Your task to perform on an android device: Clear all items from cart on target.com. Add amazon basics triple a to the cart on target.com, then select checkout. Image 0: 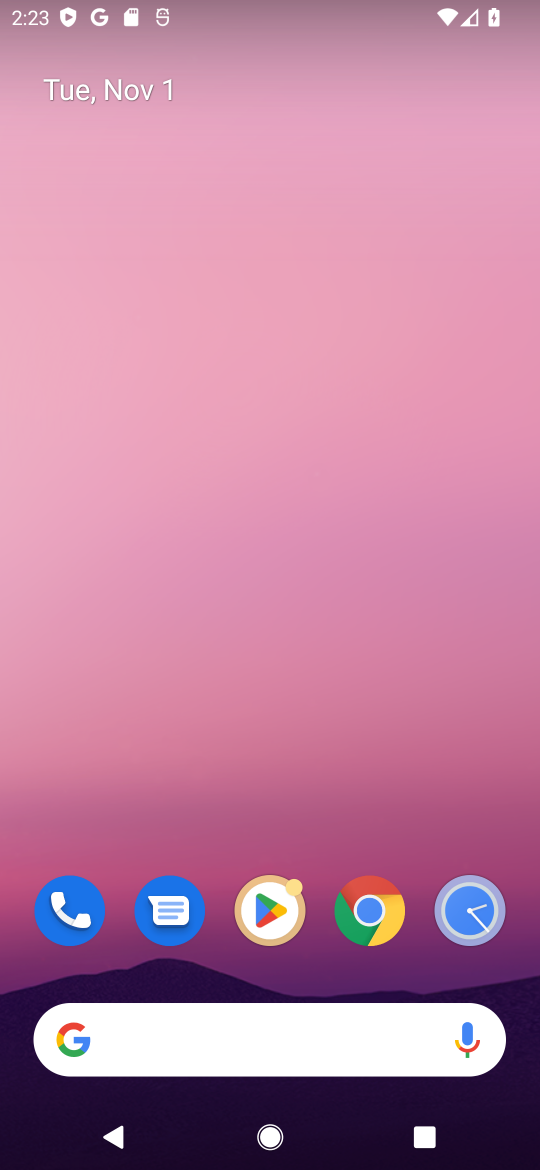
Step 0: drag from (258, 960) to (264, 192)
Your task to perform on an android device: Clear all items from cart on target.com. Add amazon basics triple a to the cart on target.com, then select checkout. Image 1: 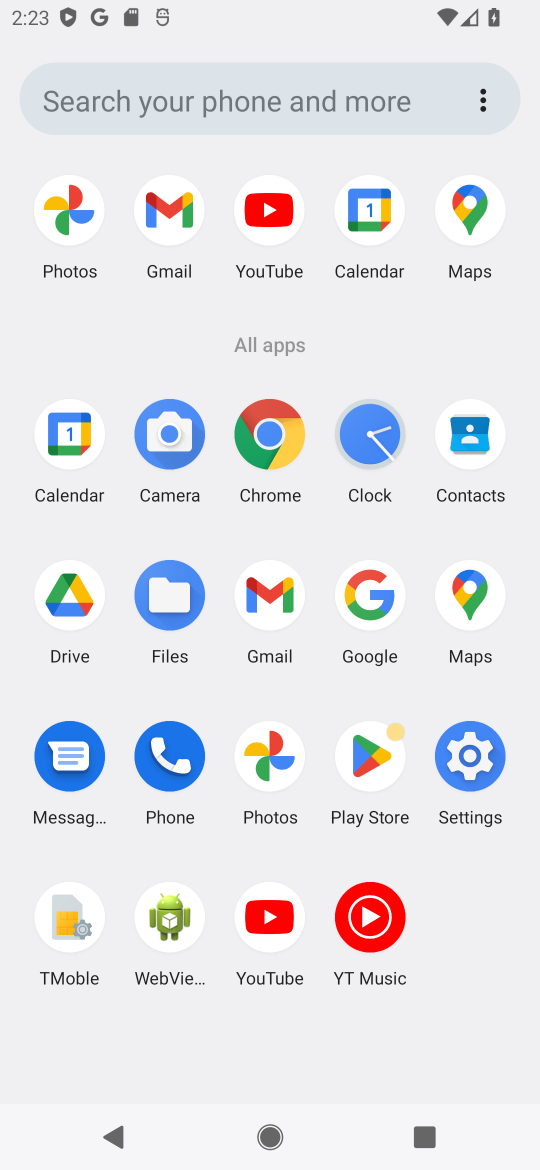
Step 1: click (374, 598)
Your task to perform on an android device: Clear all items from cart on target.com. Add amazon basics triple a to the cart on target.com, then select checkout. Image 2: 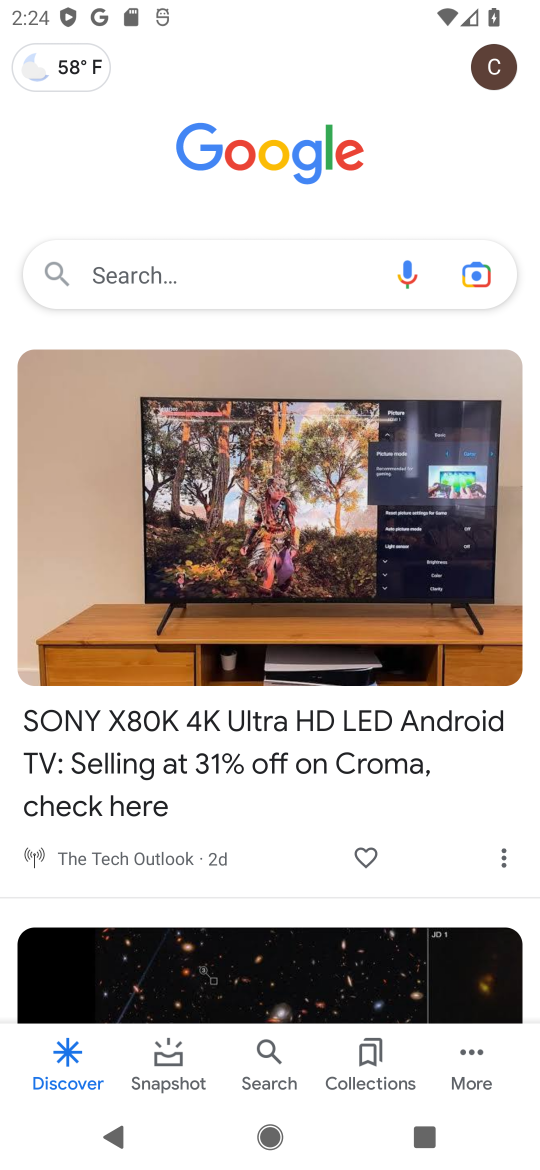
Step 2: click (209, 264)
Your task to perform on an android device: Clear all items from cart on target.com. Add amazon basics triple a to the cart on target.com, then select checkout. Image 3: 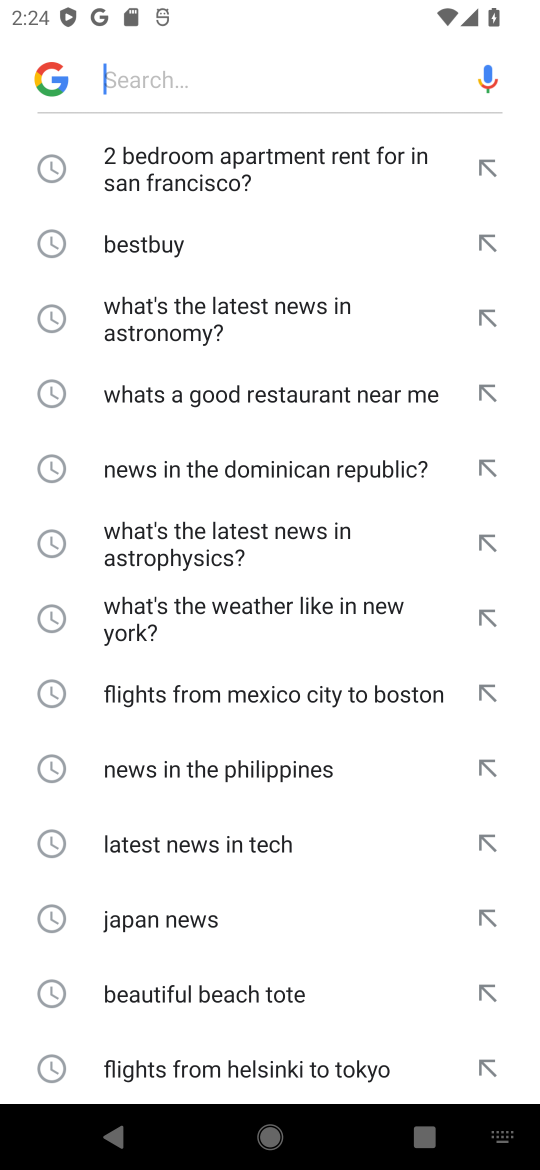
Step 3: type "target.com"
Your task to perform on an android device: Clear all items from cart on target.com. Add amazon basics triple a to the cart on target.com, then select checkout. Image 4: 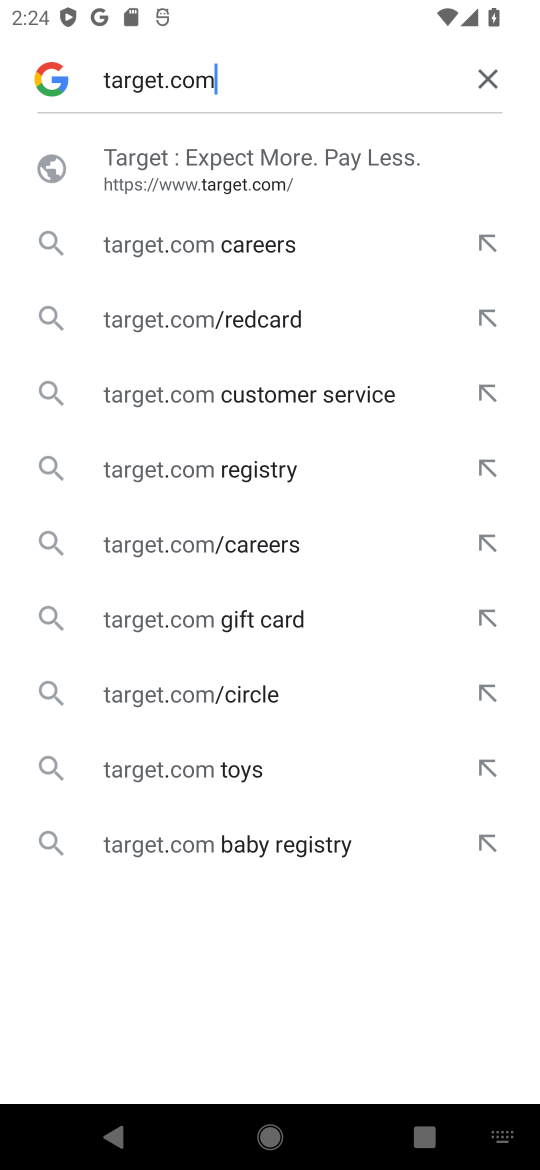
Step 4: click (239, 189)
Your task to perform on an android device: Clear all items from cart on target.com. Add amazon basics triple a to the cart on target.com, then select checkout. Image 5: 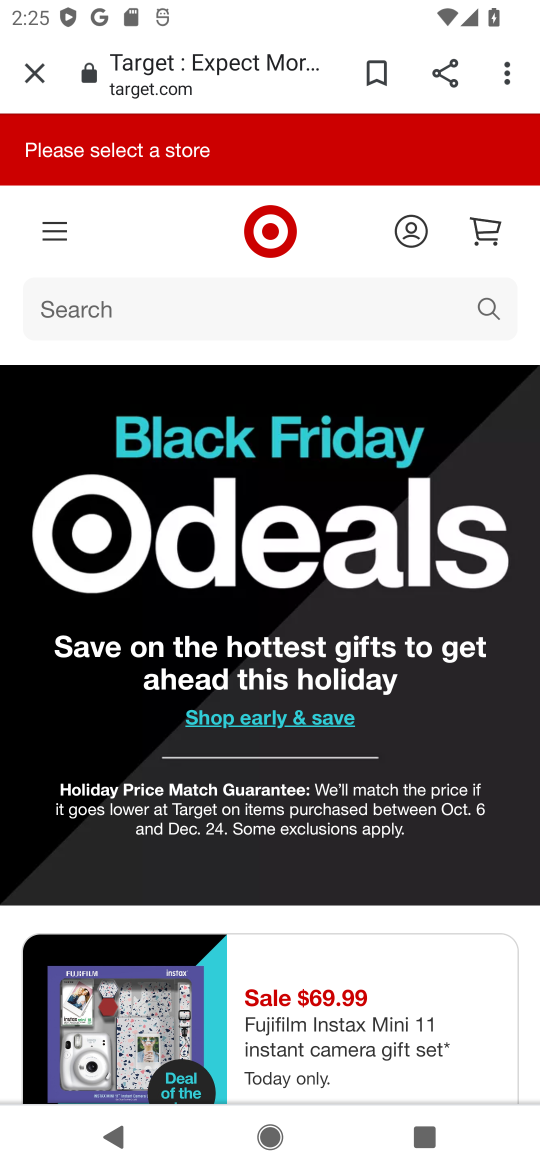
Step 5: click (493, 241)
Your task to perform on an android device: Clear all items from cart on target.com. Add amazon basics triple a to the cart on target.com, then select checkout. Image 6: 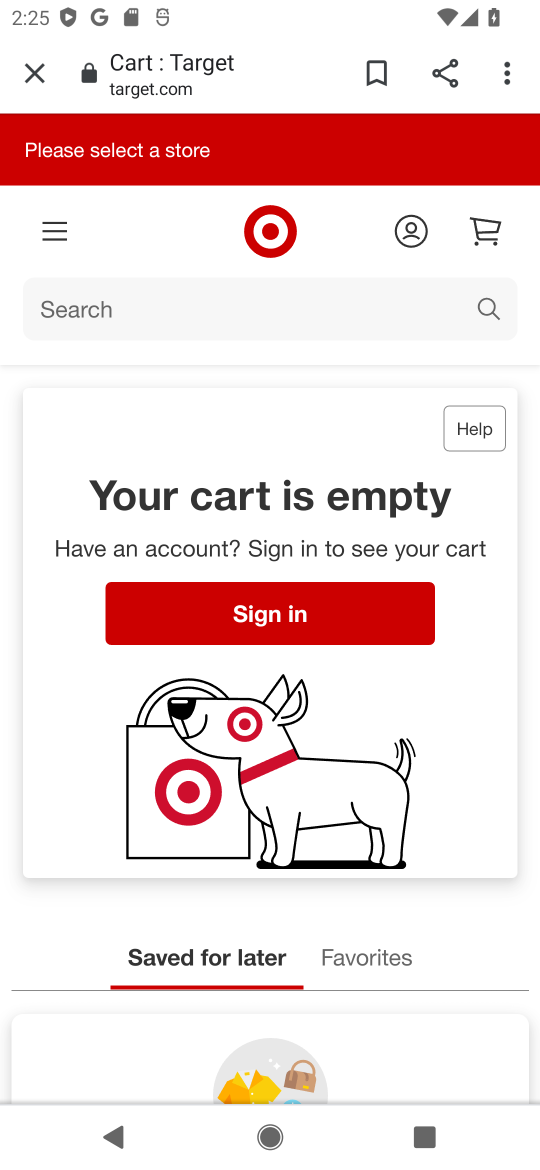
Step 6: click (470, 311)
Your task to perform on an android device: Clear all items from cart on target.com. Add amazon basics triple a to the cart on target.com, then select checkout. Image 7: 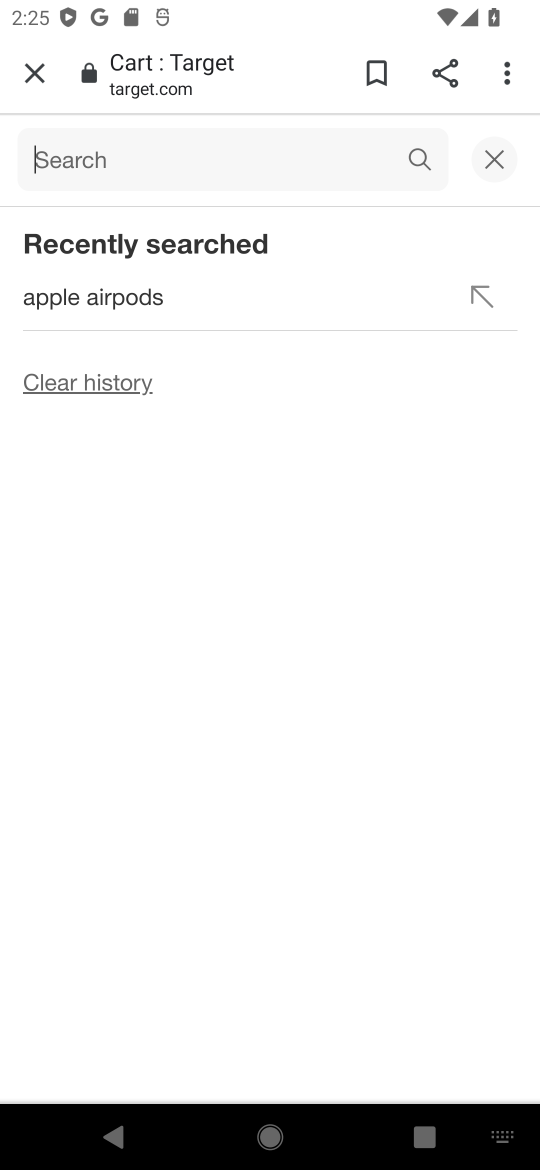
Step 7: type "triple a"
Your task to perform on an android device: Clear all items from cart on target.com. Add amazon basics triple a to the cart on target.com, then select checkout. Image 8: 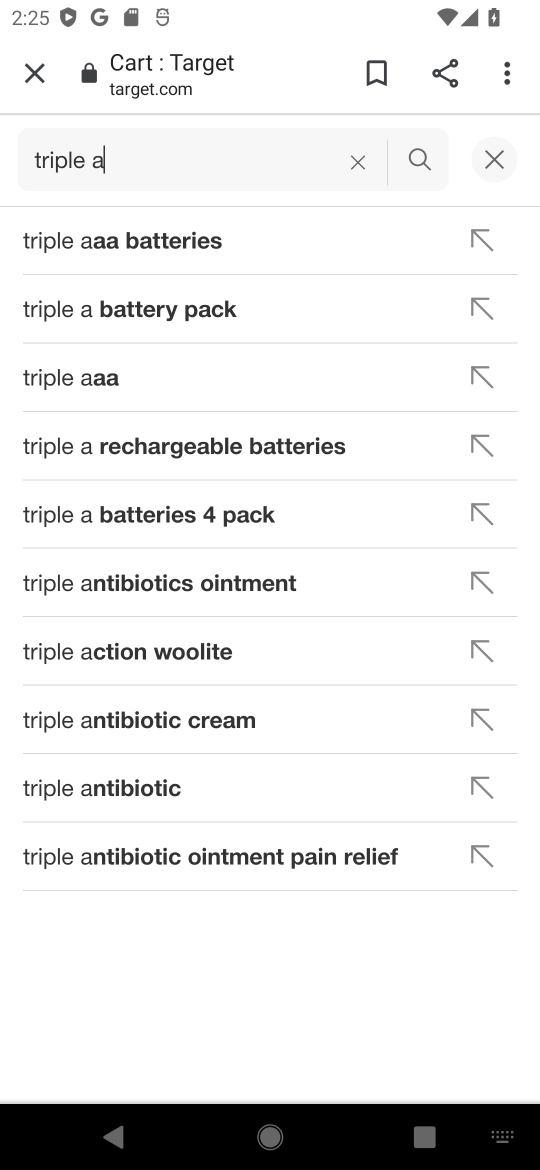
Step 8: click (215, 304)
Your task to perform on an android device: Clear all items from cart on target.com. Add amazon basics triple a to the cart on target.com, then select checkout. Image 9: 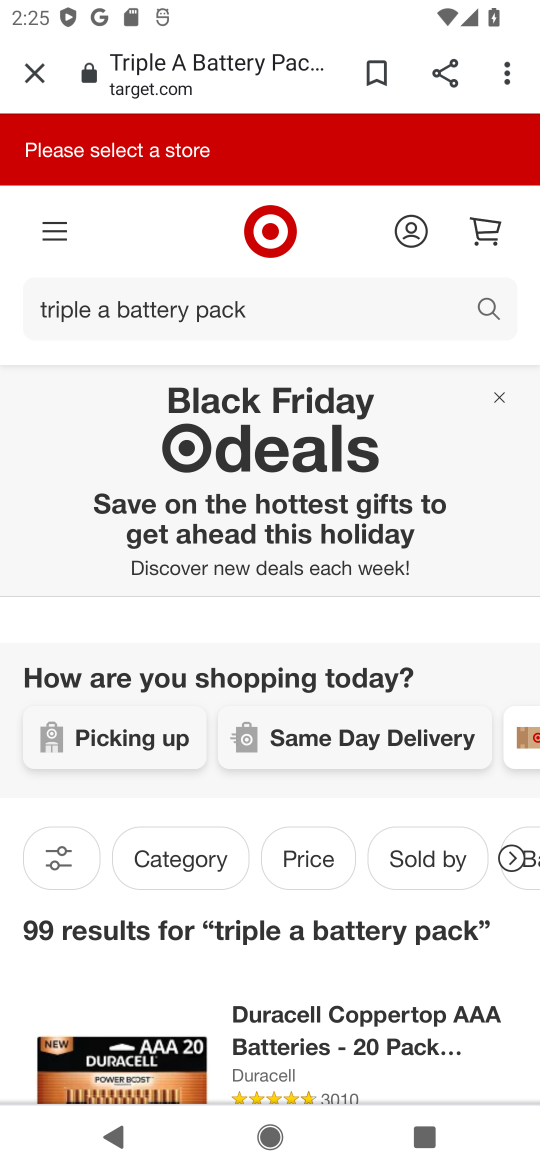
Step 9: drag from (352, 929) to (351, 768)
Your task to perform on an android device: Clear all items from cart on target.com. Add amazon basics triple a to the cart on target.com, then select checkout. Image 10: 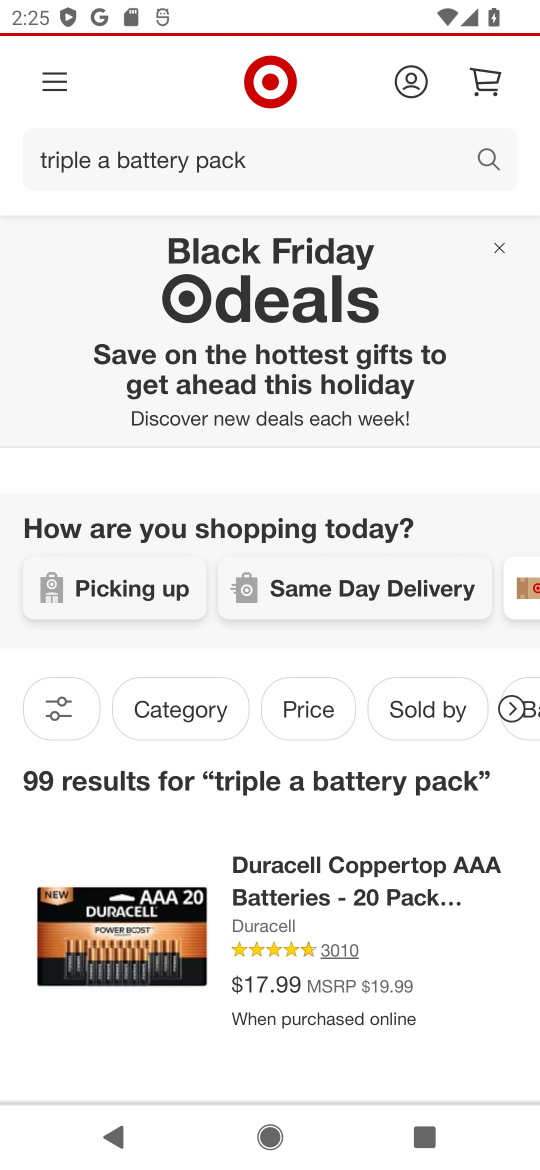
Step 10: click (351, 856)
Your task to perform on an android device: Clear all items from cart on target.com. Add amazon basics triple a to the cart on target.com, then select checkout. Image 11: 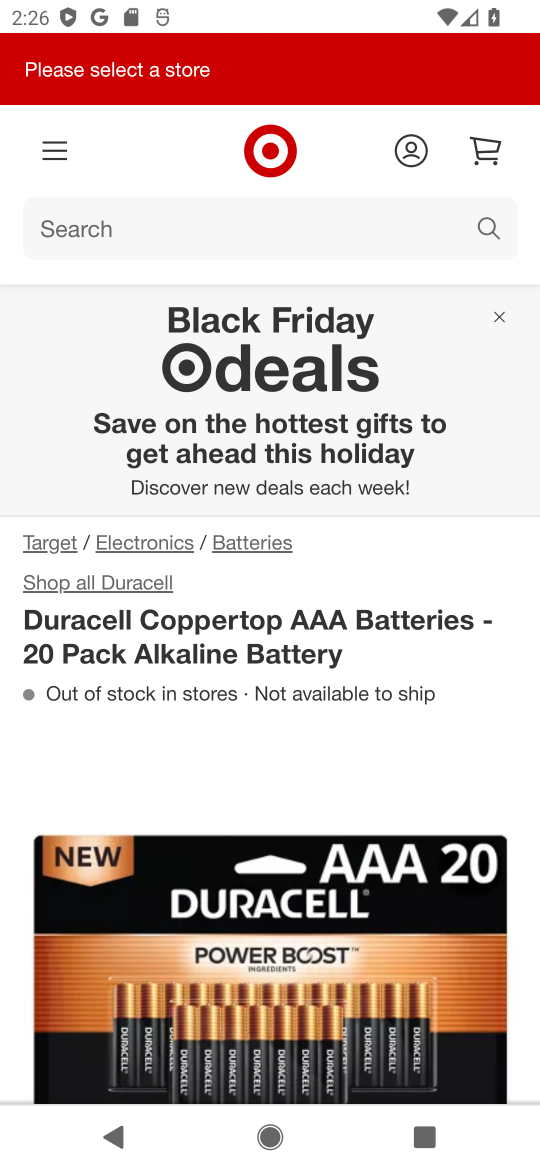
Step 11: click (360, 269)
Your task to perform on an android device: Clear all items from cart on target.com. Add amazon basics triple a to the cart on target.com, then select checkout. Image 12: 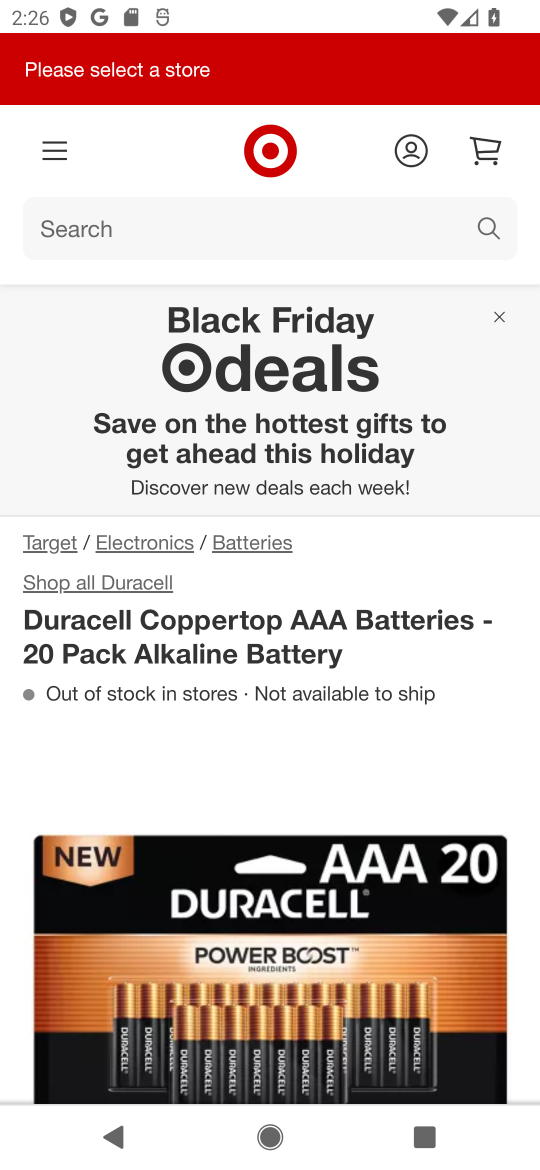
Step 12: click (335, 235)
Your task to perform on an android device: Clear all items from cart on target.com. Add amazon basics triple a to the cart on target.com, then select checkout. Image 13: 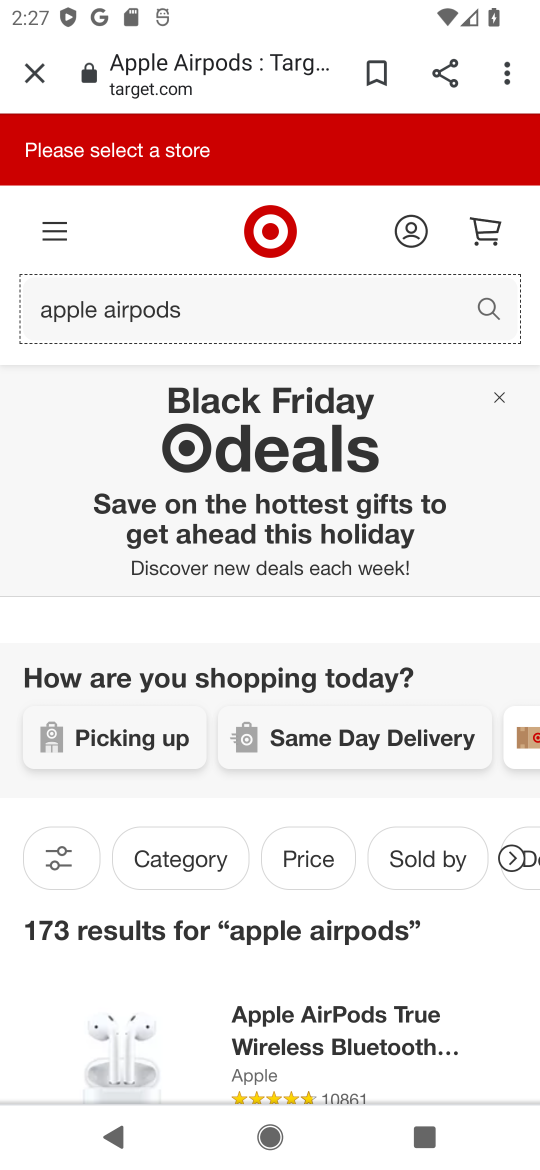
Step 13: click (440, 312)
Your task to perform on an android device: Clear all items from cart on target.com. Add amazon basics triple a to the cart on target.com, then select checkout. Image 14: 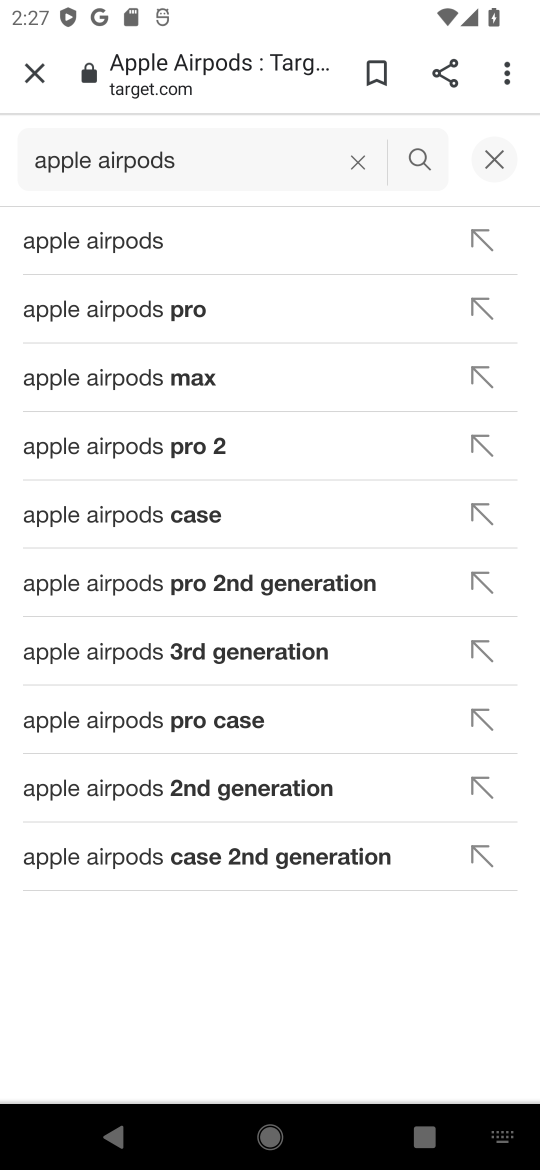
Step 14: click (356, 162)
Your task to perform on an android device: Clear all items from cart on target.com. Add amazon basics triple a to the cart on target.com, then select checkout. Image 15: 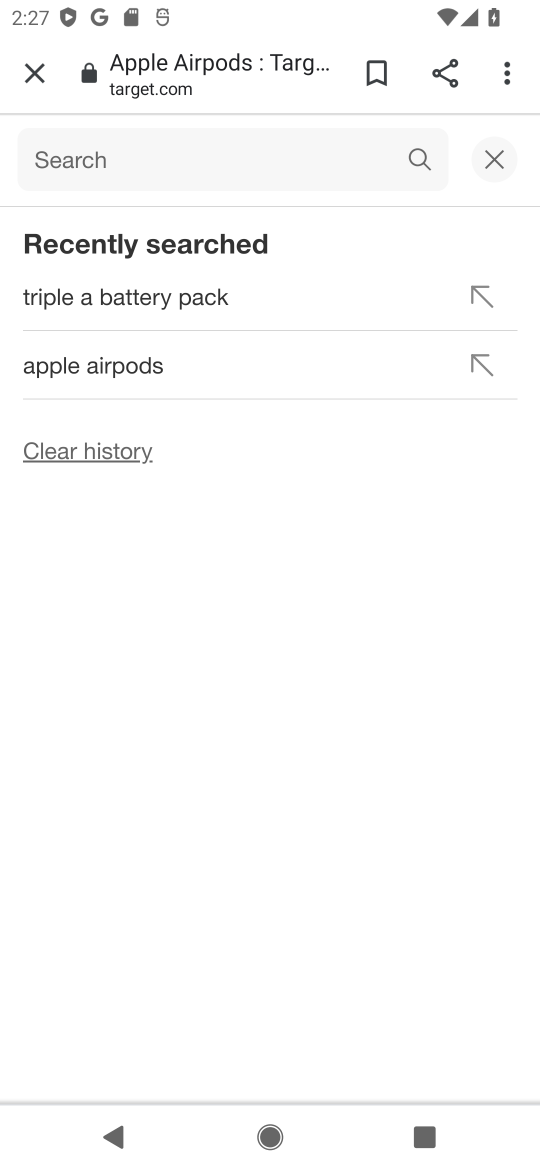
Step 15: type "amazon basics triple a "
Your task to perform on an android device: Clear all items from cart on target.com. Add amazon basics triple a to the cart on target.com, then select checkout. Image 16: 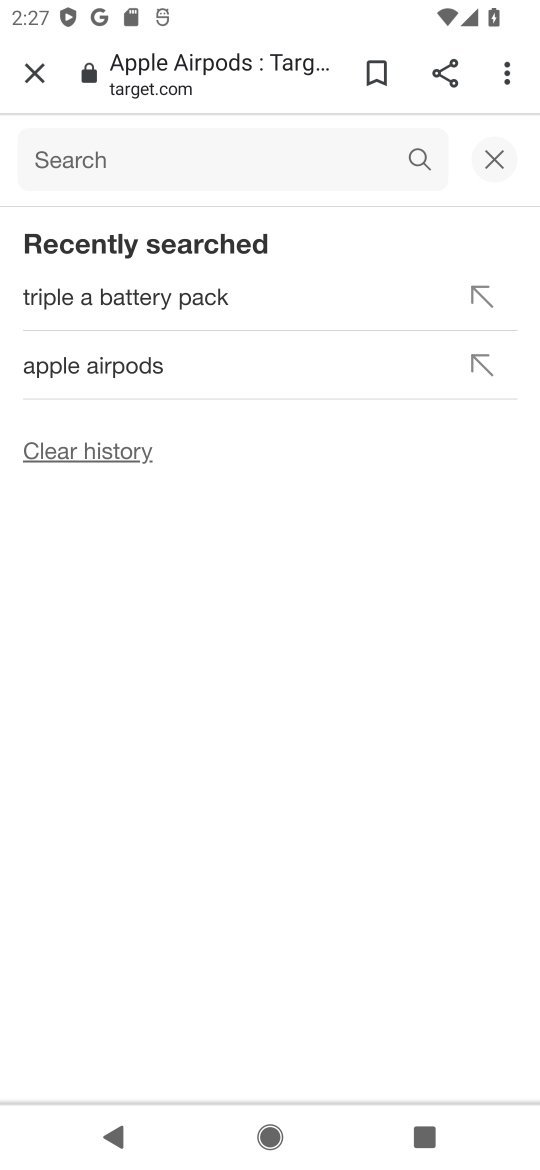
Step 16: task complete